Your task to perform on an android device: change notifications settings Image 0: 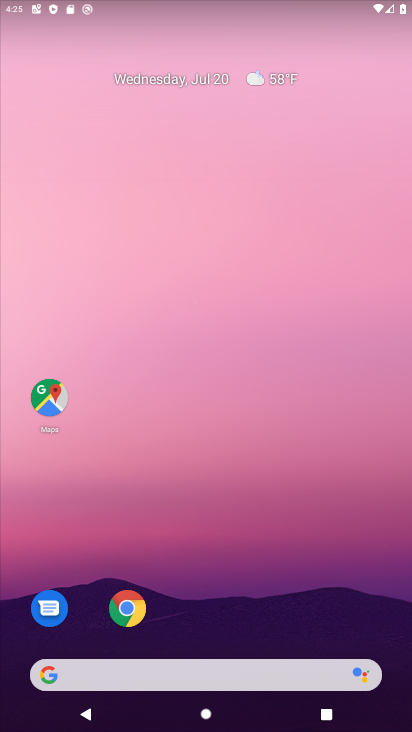
Step 0: drag from (239, 645) to (227, 123)
Your task to perform on an android device: change notifications settings Image 1: 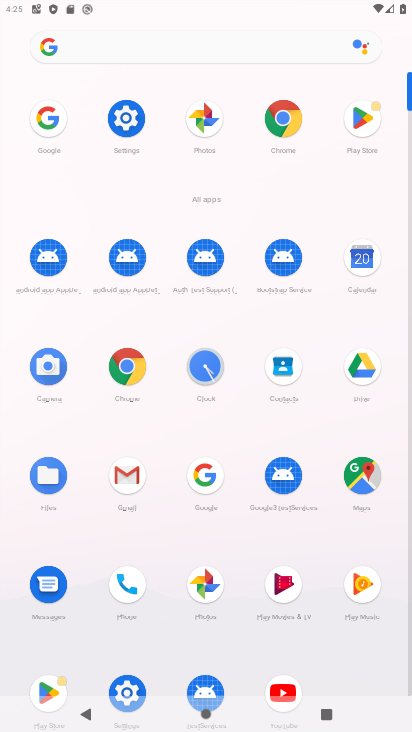
Step 1: click (126, 130)
Your task to perform on an android device: change notifications settings Image 2: 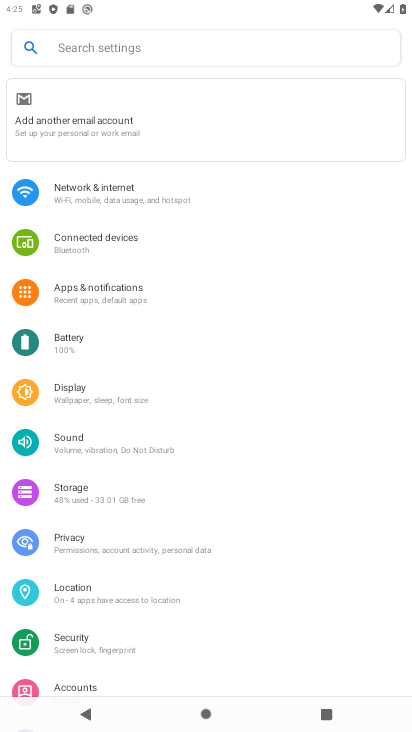
Step 2: click (153, 298)
Your task to perform on an android device: change notifications settings Image 3: 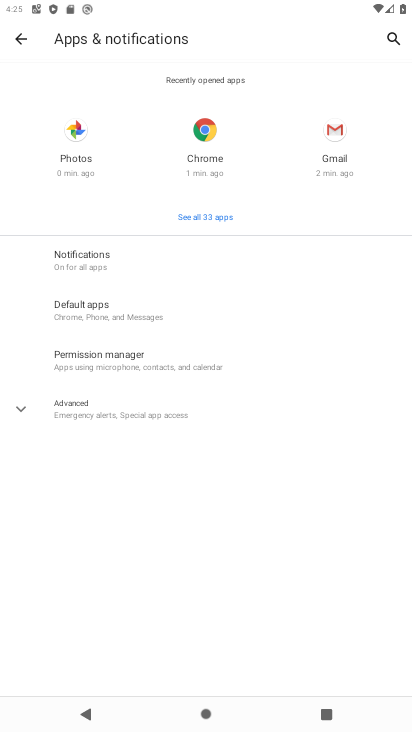
Step 3: click (114, 267)
Your task to perform on an android device: change notifications settings Image 4: 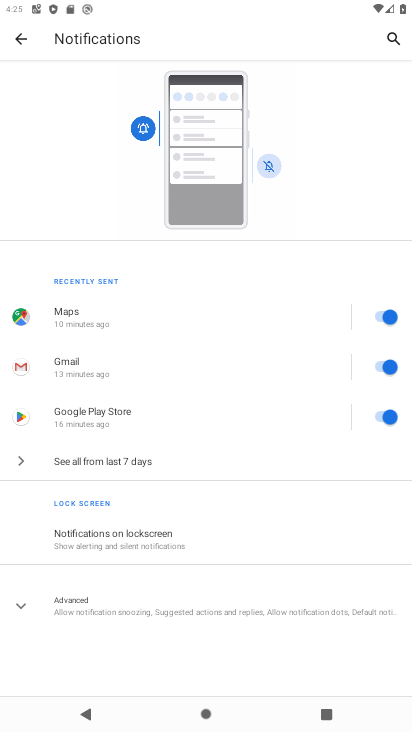
Step 4: click (73, 461)
Your task to perform on an android device: change notifications settings Image 5: 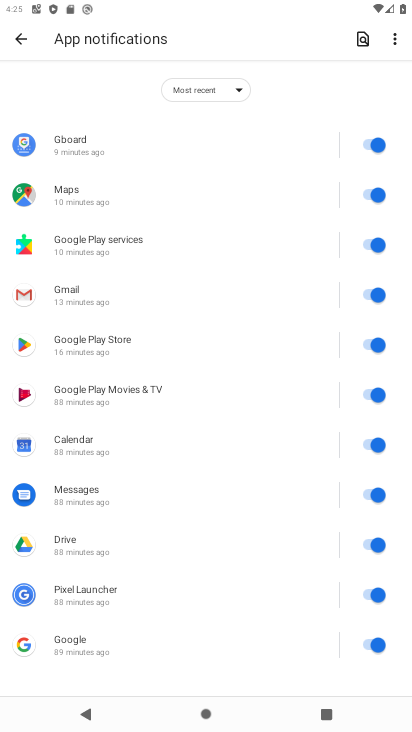
Step 5: click (193, 85)
Your task to perform on an android device: change notifications settings Image 6: 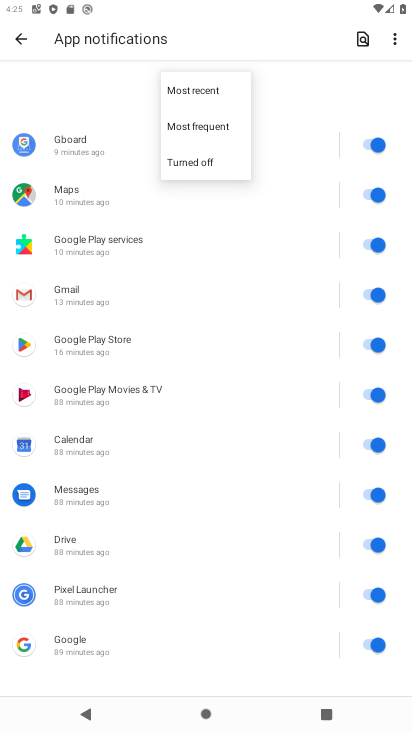
Step 6: click (195, 152)
Your task to perform on an android device: change notifications settings Image 7: 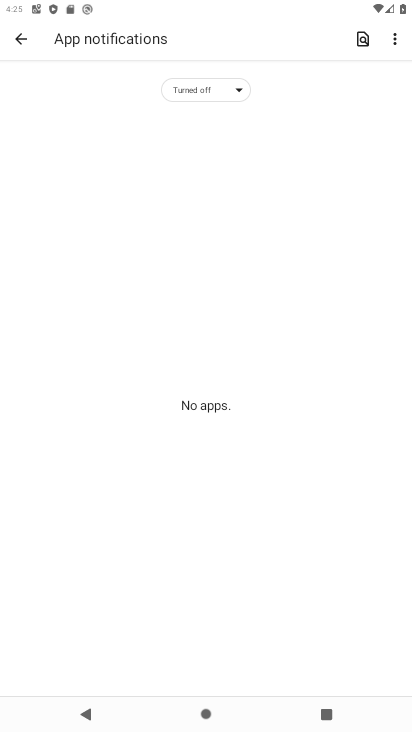
Step 7: task complete